Your task to perform on an android device: When is my next meeting? Image 0: 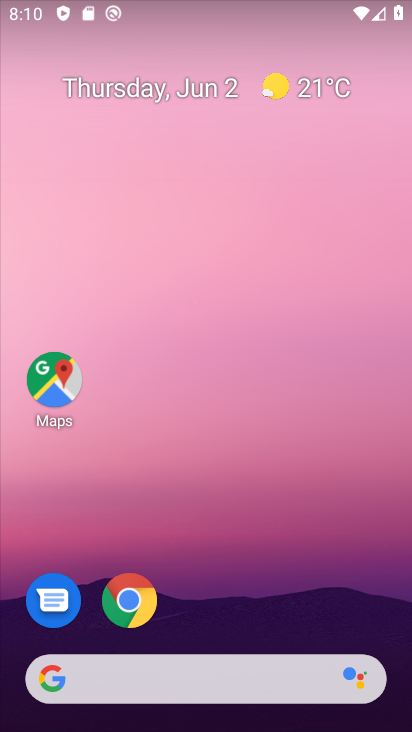
Step 0: drag from (208, 611) to (208, 271)
Your task to perform on an android device: When is my next meeting? Image 1: 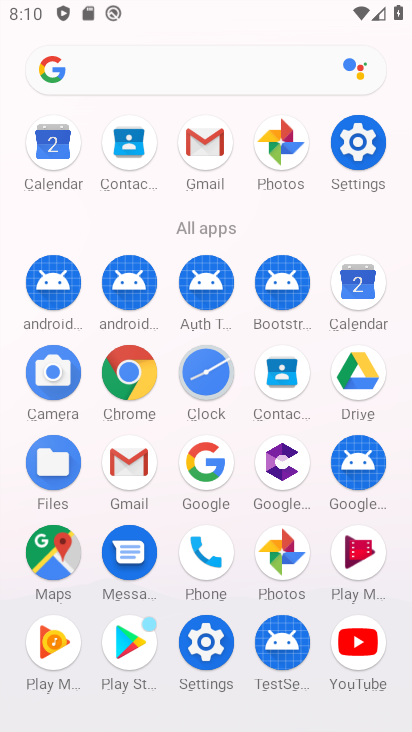
Step 1: click (366, 303)
Your task to perform on an android device: When is my next meeting? Image 2: 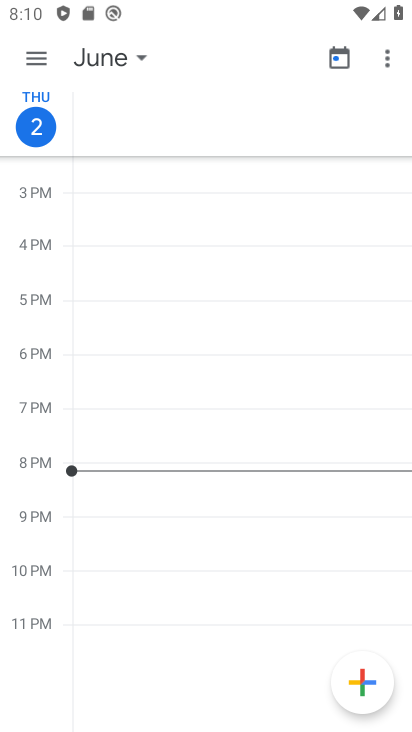
Step 2: click (24, 57)
Your task to perform on an android device: When is my next meeting? Image 3: 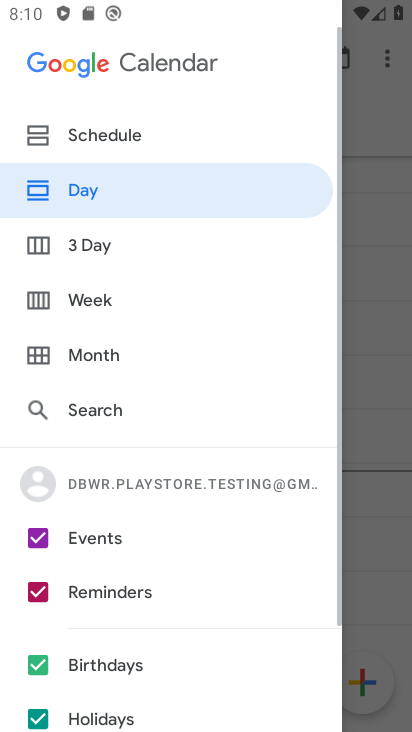
Step 3: click (149, 140)
Your task to perform on an android device: When is my next meeting? Image 4: 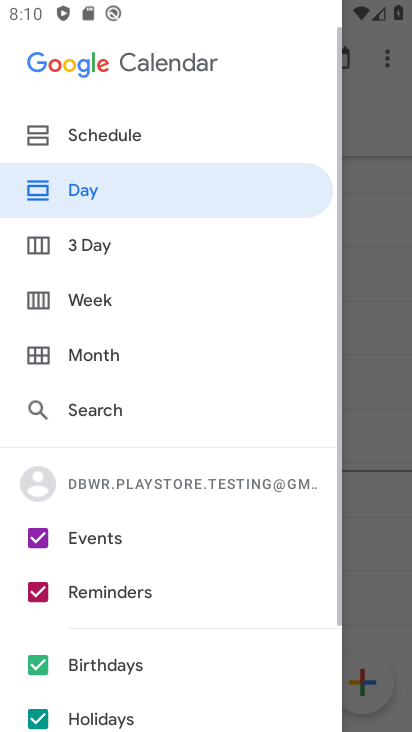
Step 4: click (125, 133)
Your task to perform on an android device: When is my next meeting? Image 5: 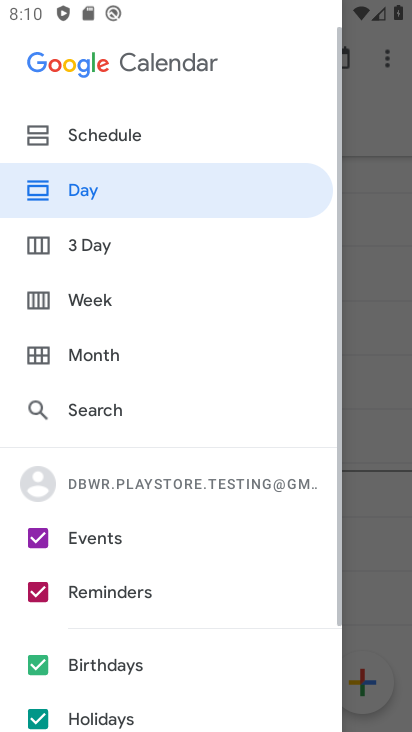
Step 5: click (144, 136)
Your task to perform on an android device: When is my next meeting? Image 6: 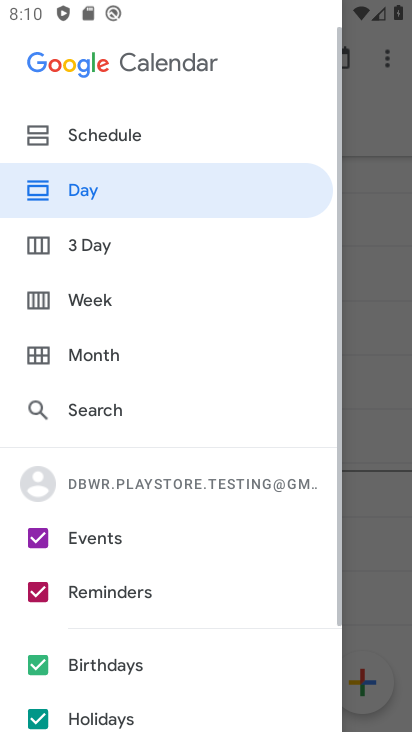
Step 6: click (144, 136)
Your task to perform on an android device: When is my next meeting? Image 7: 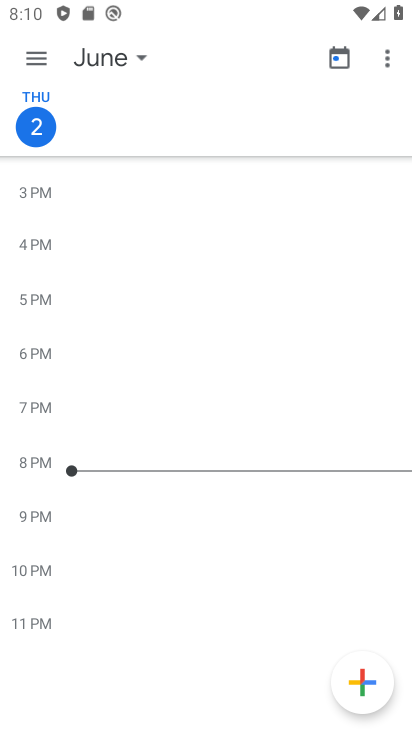
Step 7: click (394, 204)
Your task to perform on an android device: When is my next meeting? Image 8: 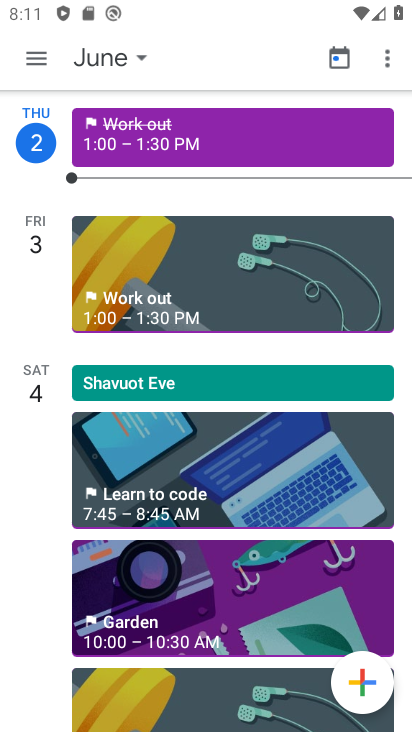
Step 8: task complete